Your task to perform on an android device: Open settings Image 0: 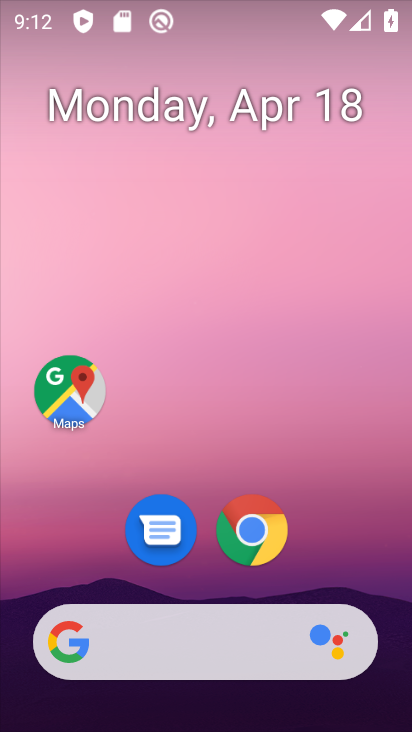
Step 0: drag from (340, 463) to (356, 6)
Your task to perform on an android device: Open settings Image 1: 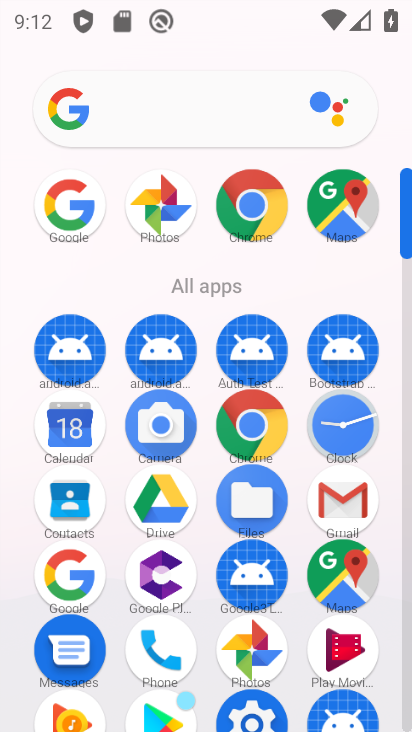
Step 1: click (257, 714)
Your task to perform on an android device: Open settings Image 2: 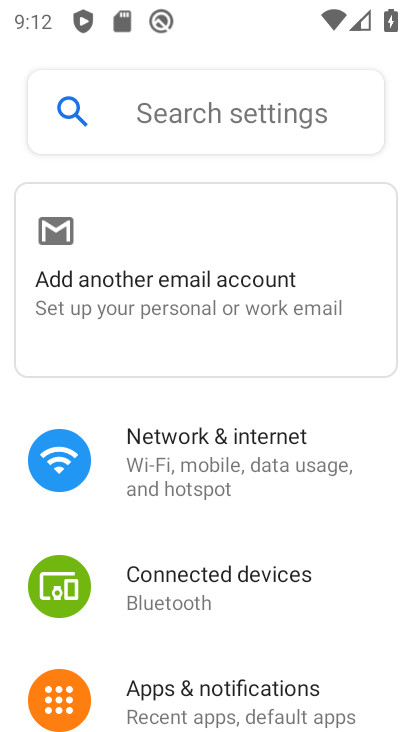
Step 2: task complete